Your task to perform on an android device: Open network settings Image 0: 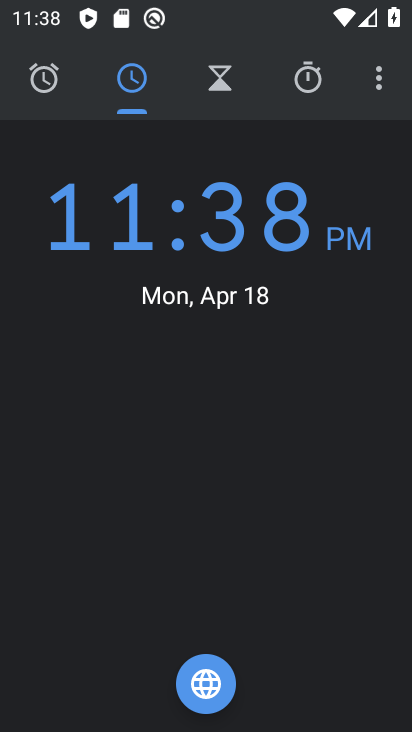
Step 0: press home button
Your task to perform on an android device: Open network settings Image 1: 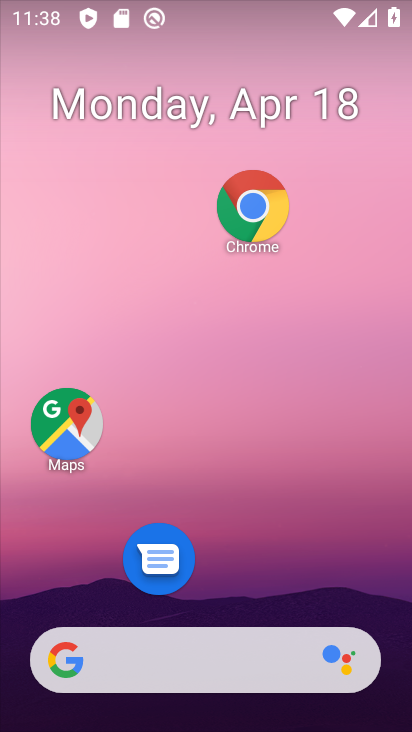
Step 1: drag from (231, 645) to (137, 18)
Your task to perform on an android device: Open network settings Image 2: 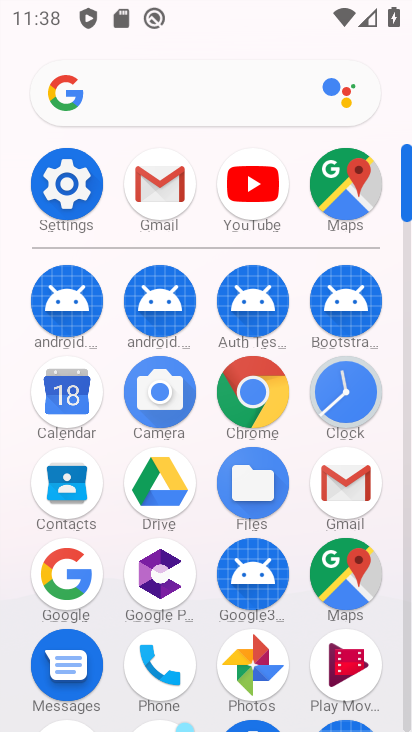
Step 2: click (67, 186)
Your task to perform on an android device: Open network settings Image 3: 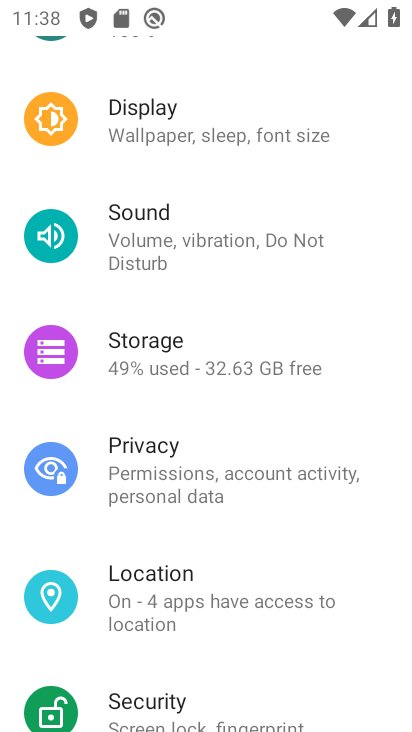
Step 3: drag from (290, 168) to (376, 692)
Your task to perform on an android device: Open network settings Image 4: 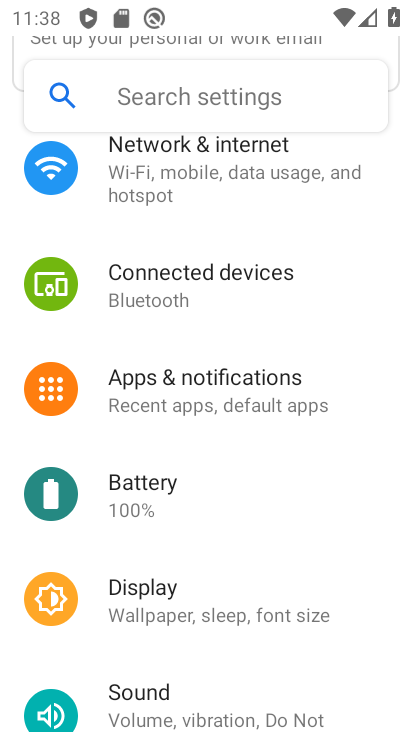
Step 4: click (268, 181)
Your task to perform on an android device: Open network settings Image 5: 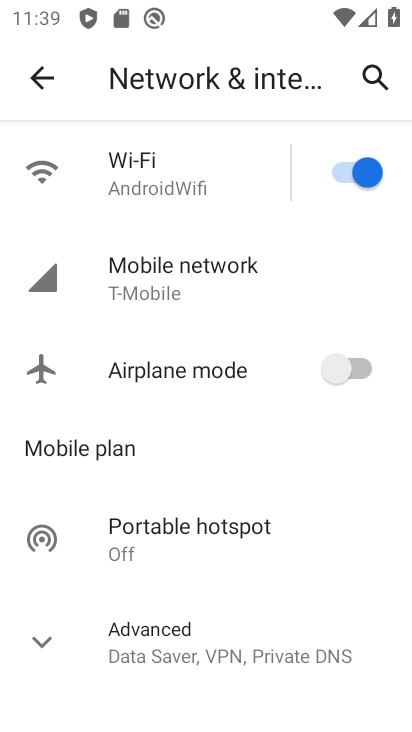
Step 5: click (225, 273)
Your task to perform on an android device: Open network settings Image 6: 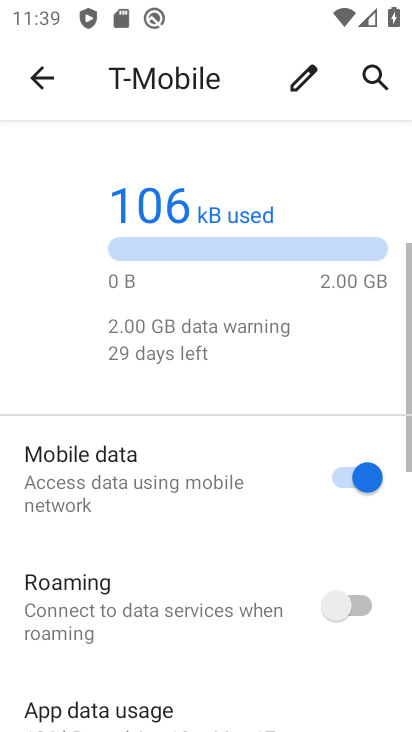
Step 6: task complete